Your task to perform on an android device: Show me recent news Image 0: 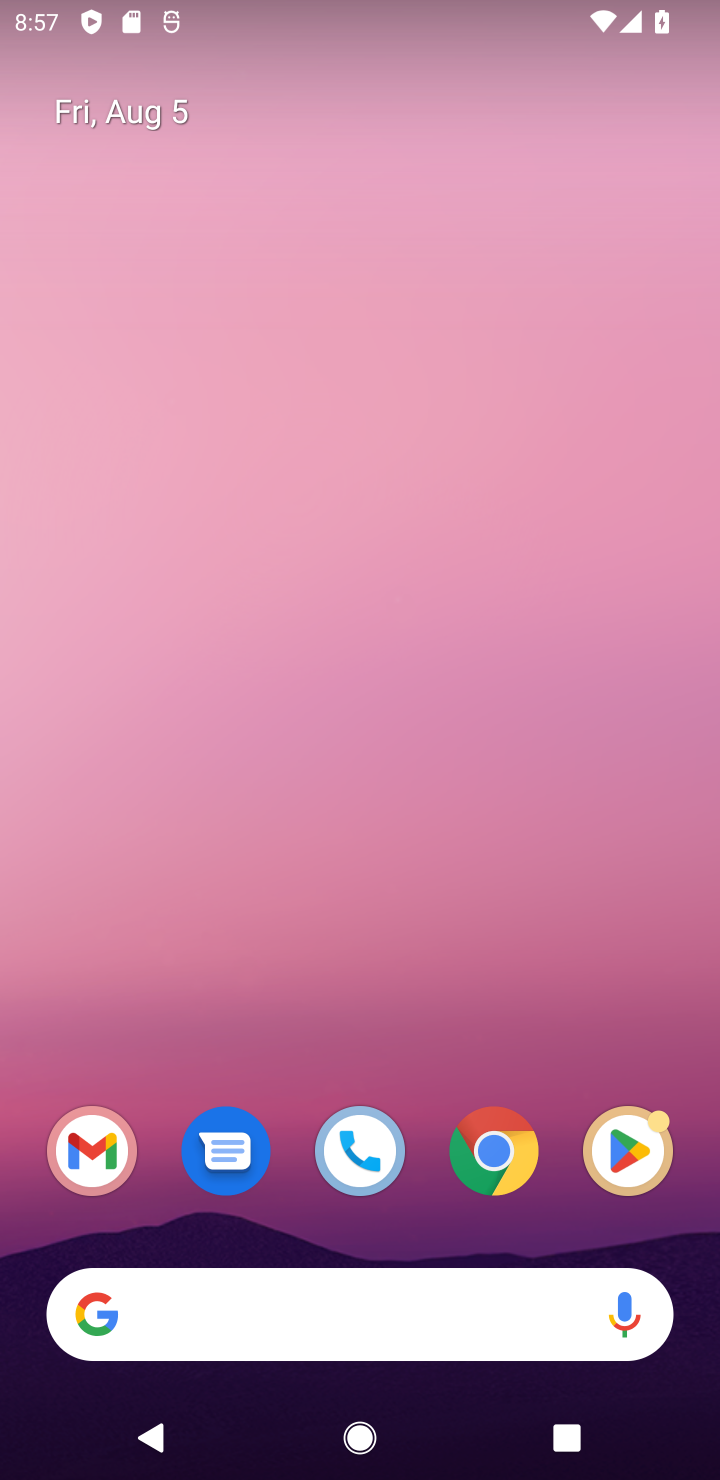
Step 0: drag from (363, 868) to (382, 141)
Your task to perform on an android device: Show me recent news Image 1: 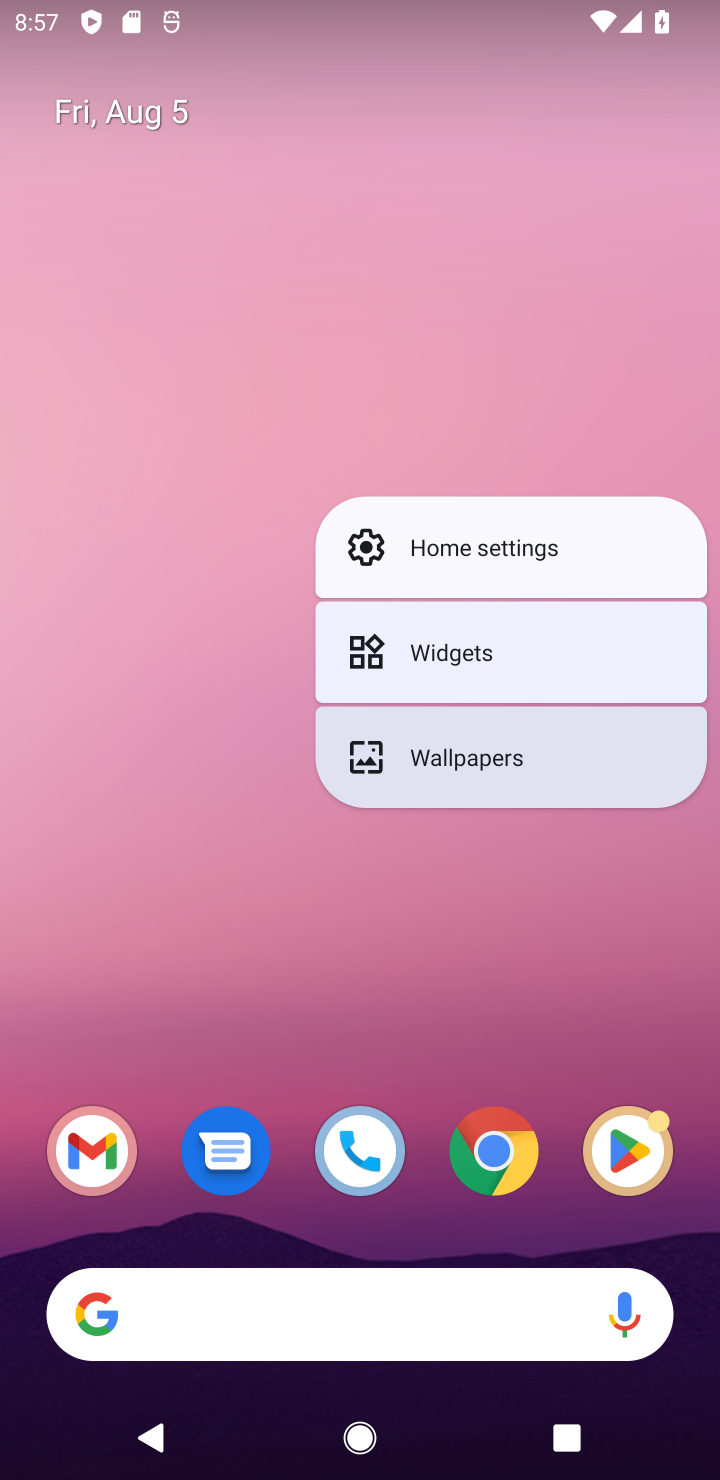
Step 1: drag from (282, 1045) to (258, 347)
Your task to perform on an android device: Show me recent news Image 2: 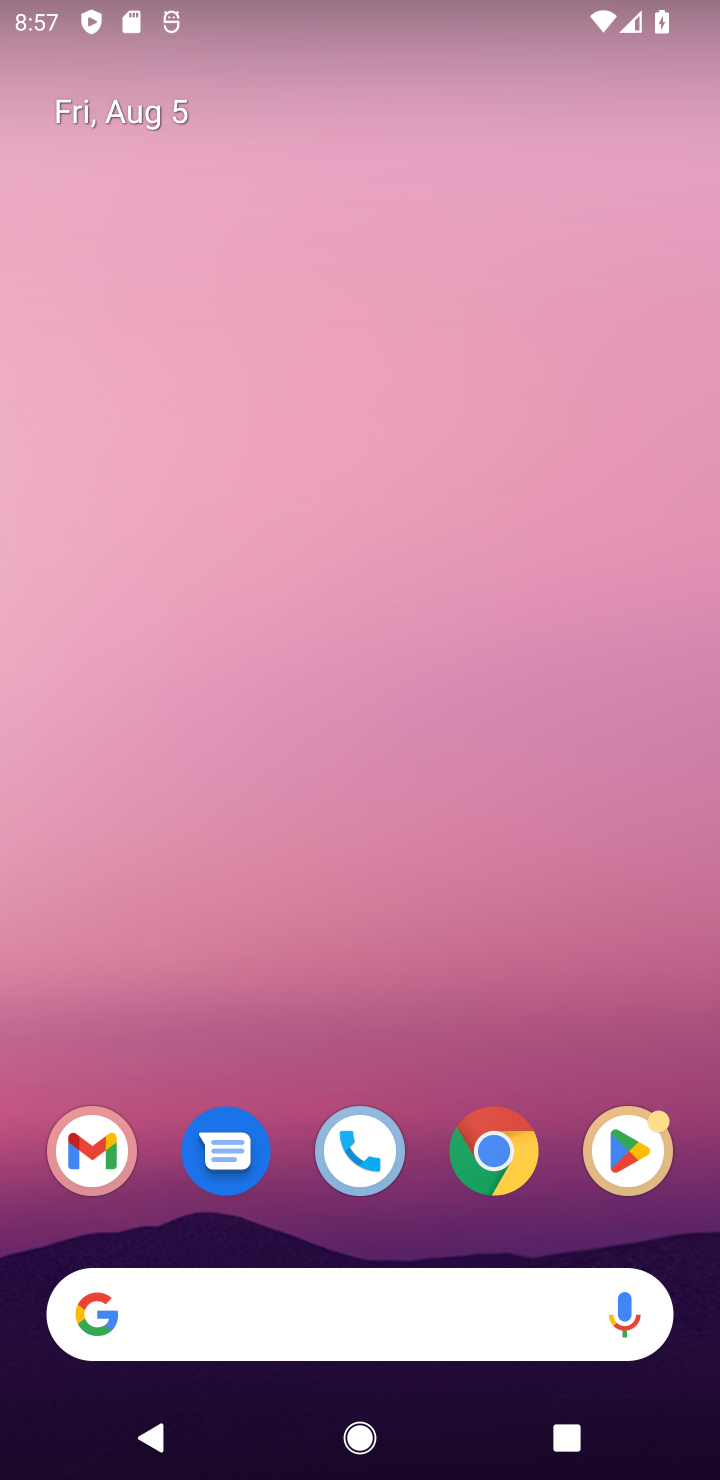
Step 2: drag from (330, 1187) to (330, 505)
Your task to perform on an android device: Show me recent news Image 3: 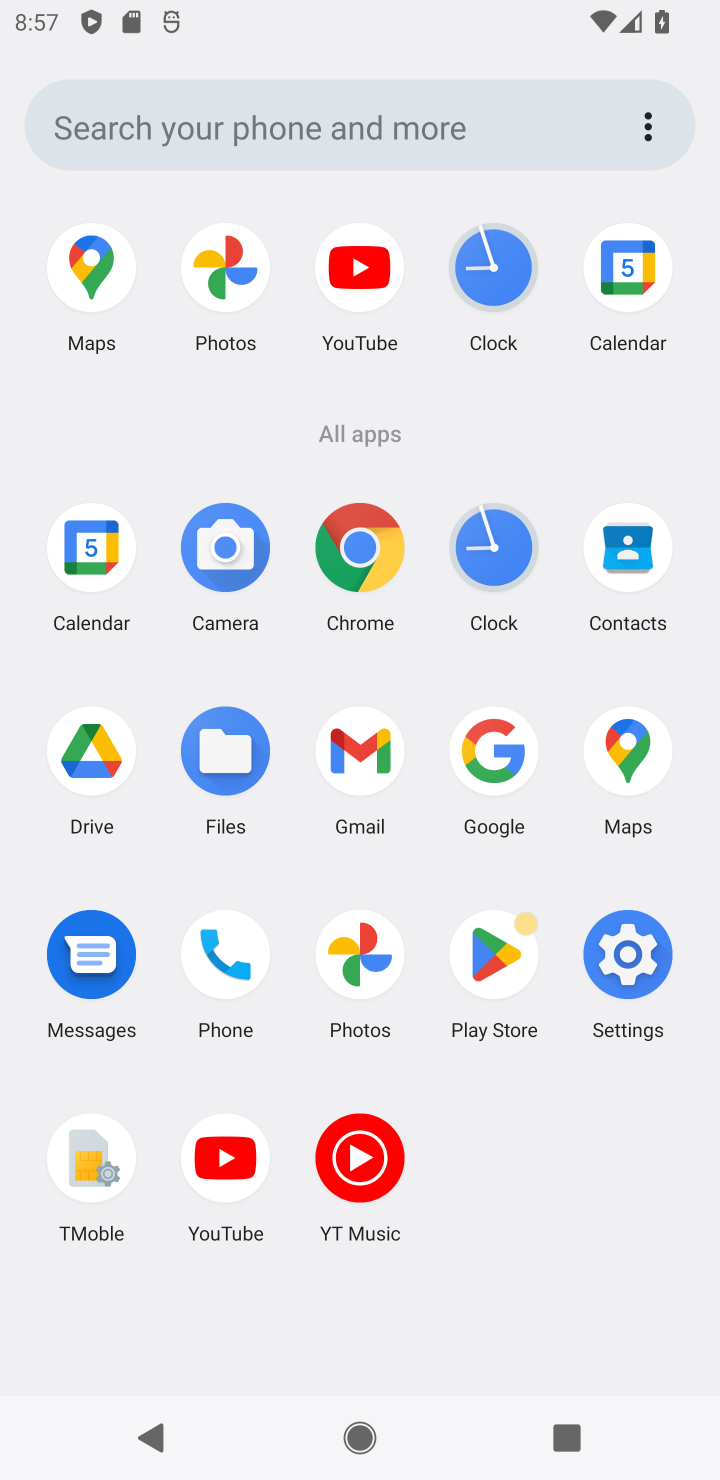
Step 3: click (500, 784)
Your task to perform on an android device: Show me recent news Image 4: 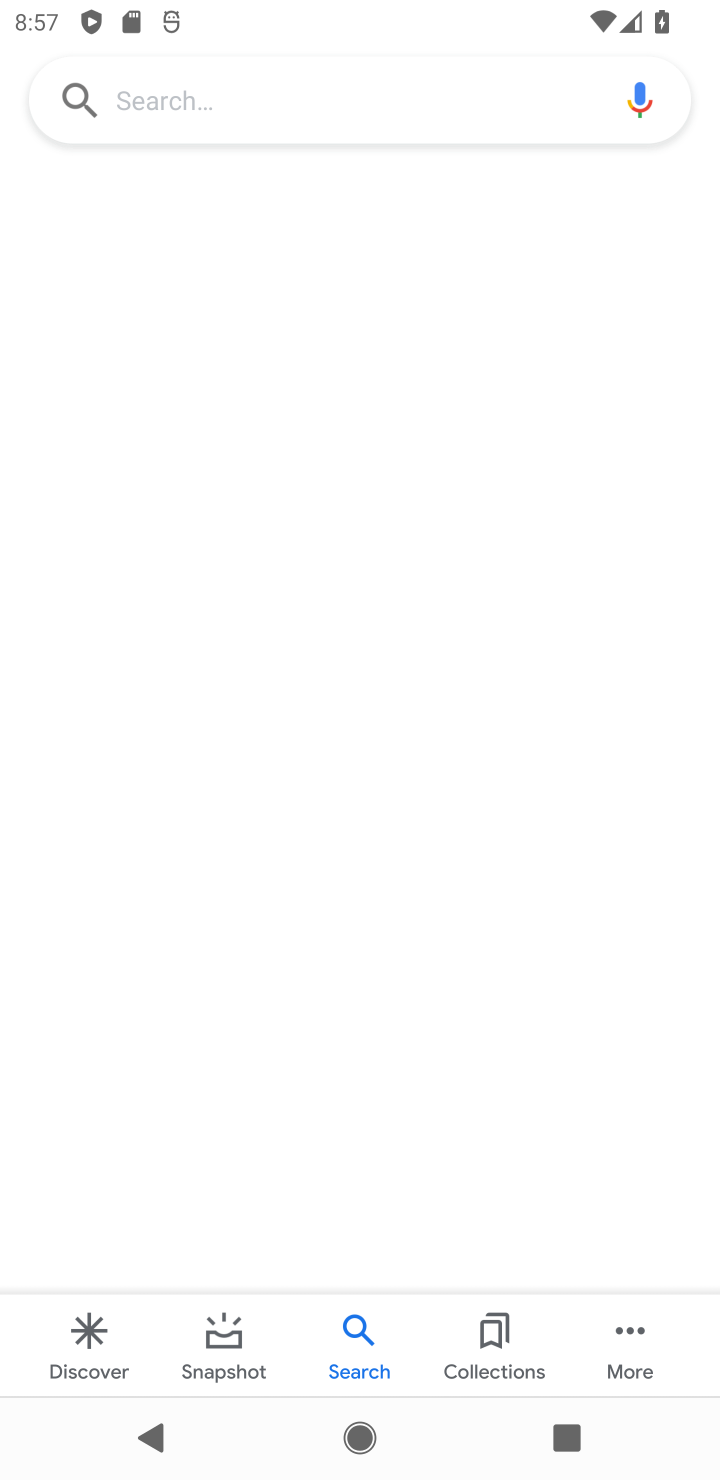
Step 4: click (435, 123)
Your task to perform on an android device: Show me recent news Image 5: 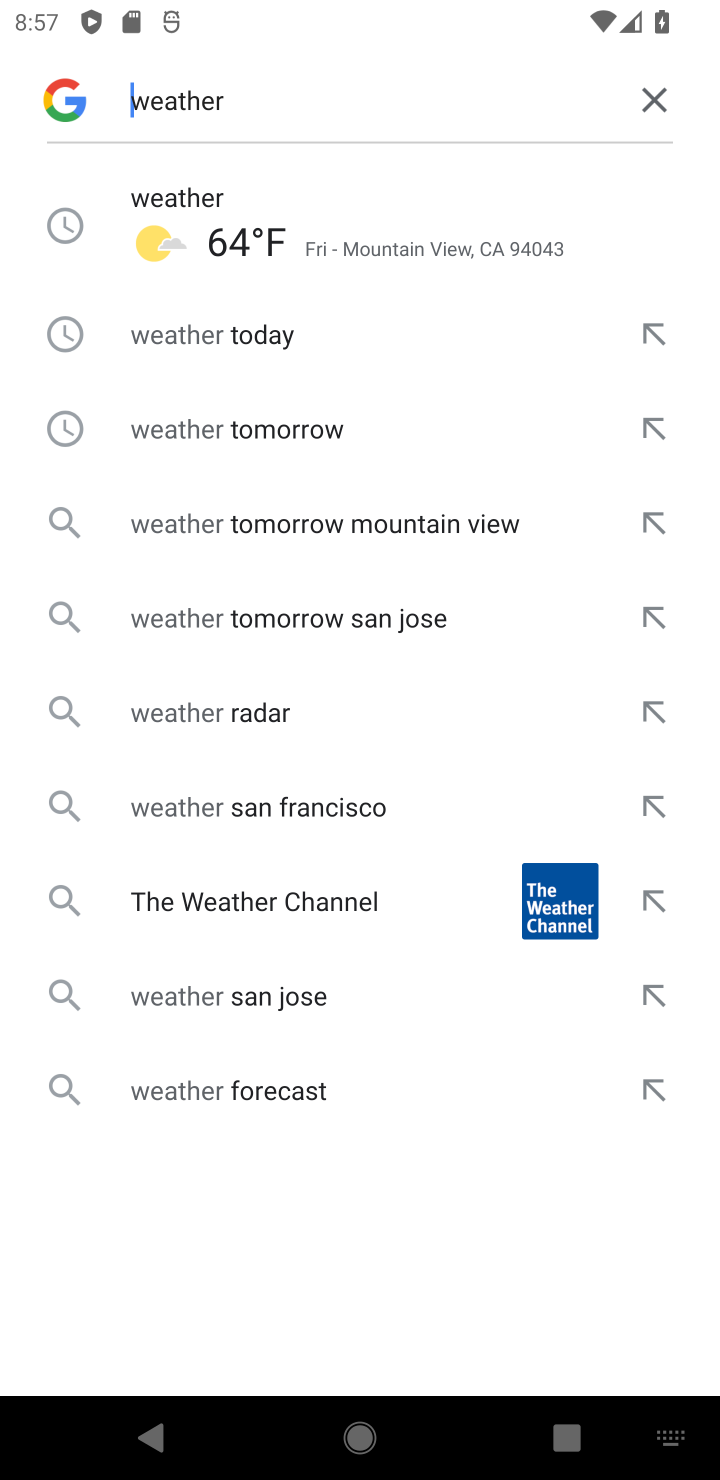
Step 5: click (654, 105)
Your task to perform on an android device: Show me recent news Image 6: 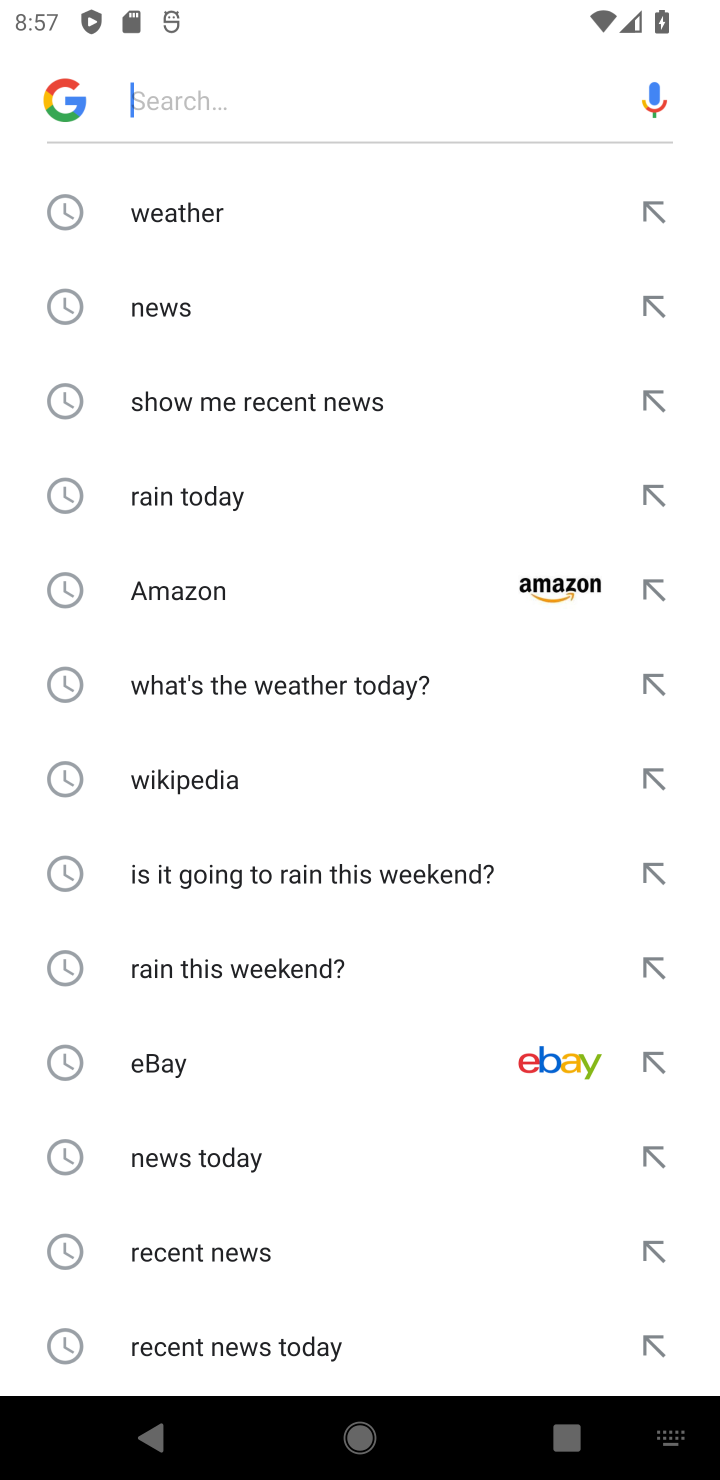
Step 6: type "recent news"
Your task to perform on an android device: Show me recent news Image 7: 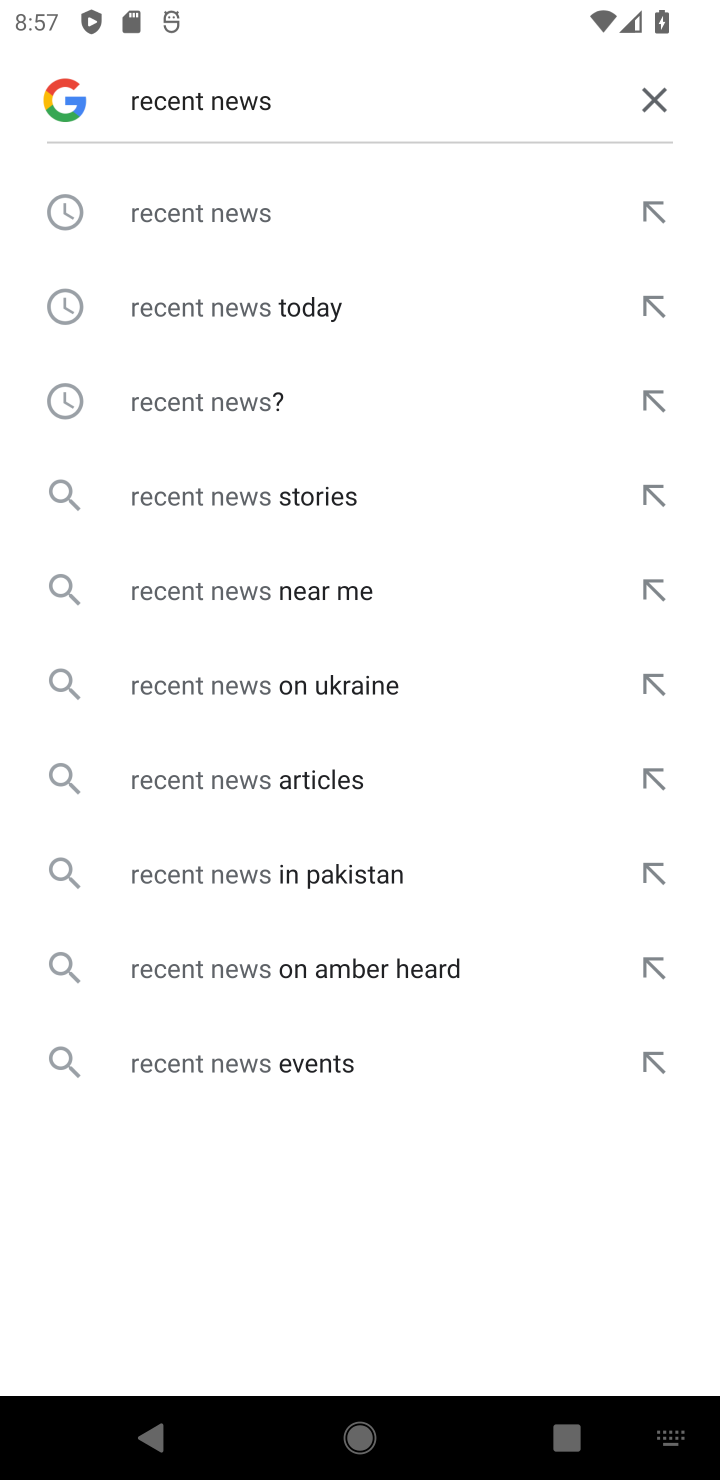
Step 7: click (222, 200)
Your task to perform on an android device: Show me recent news Image 8: 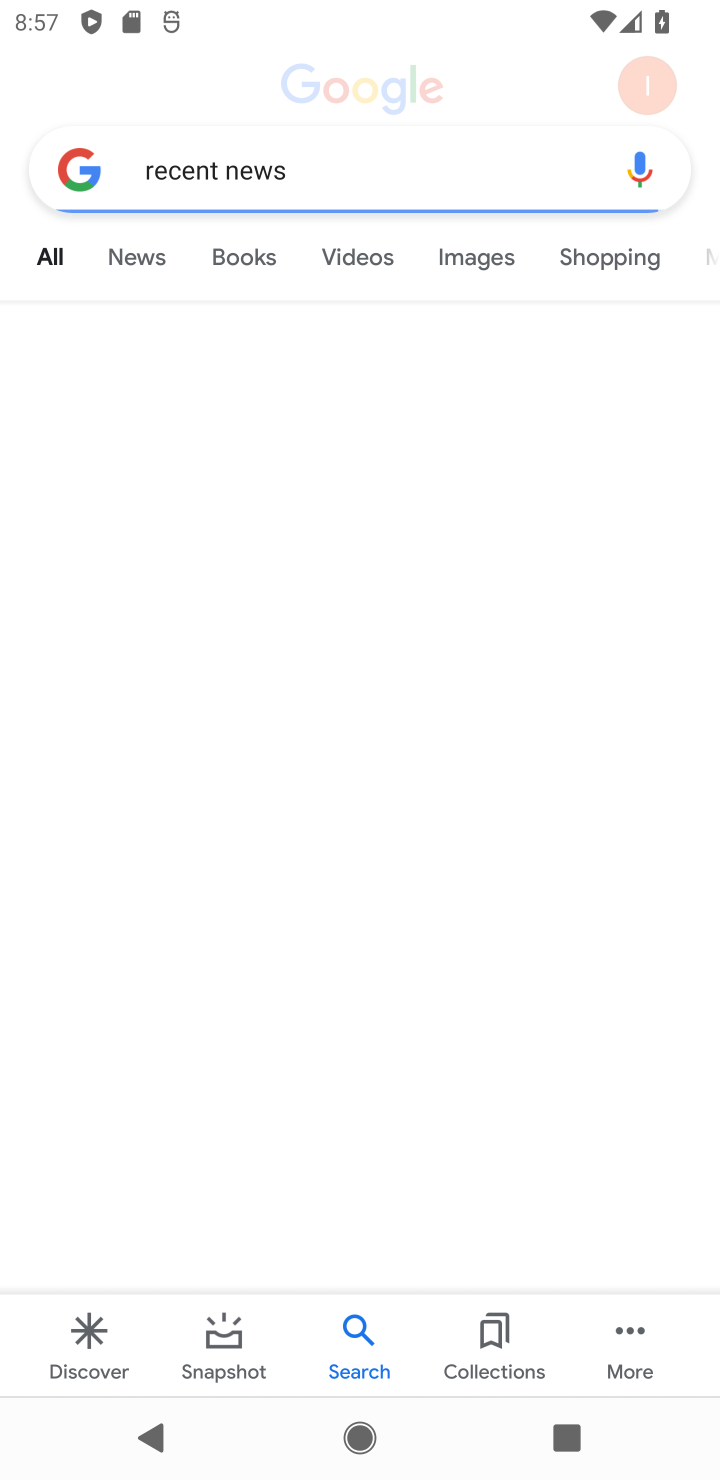
Step 8: task complete